Your task to perform on an android device: open app "Google Maps" Image 0: 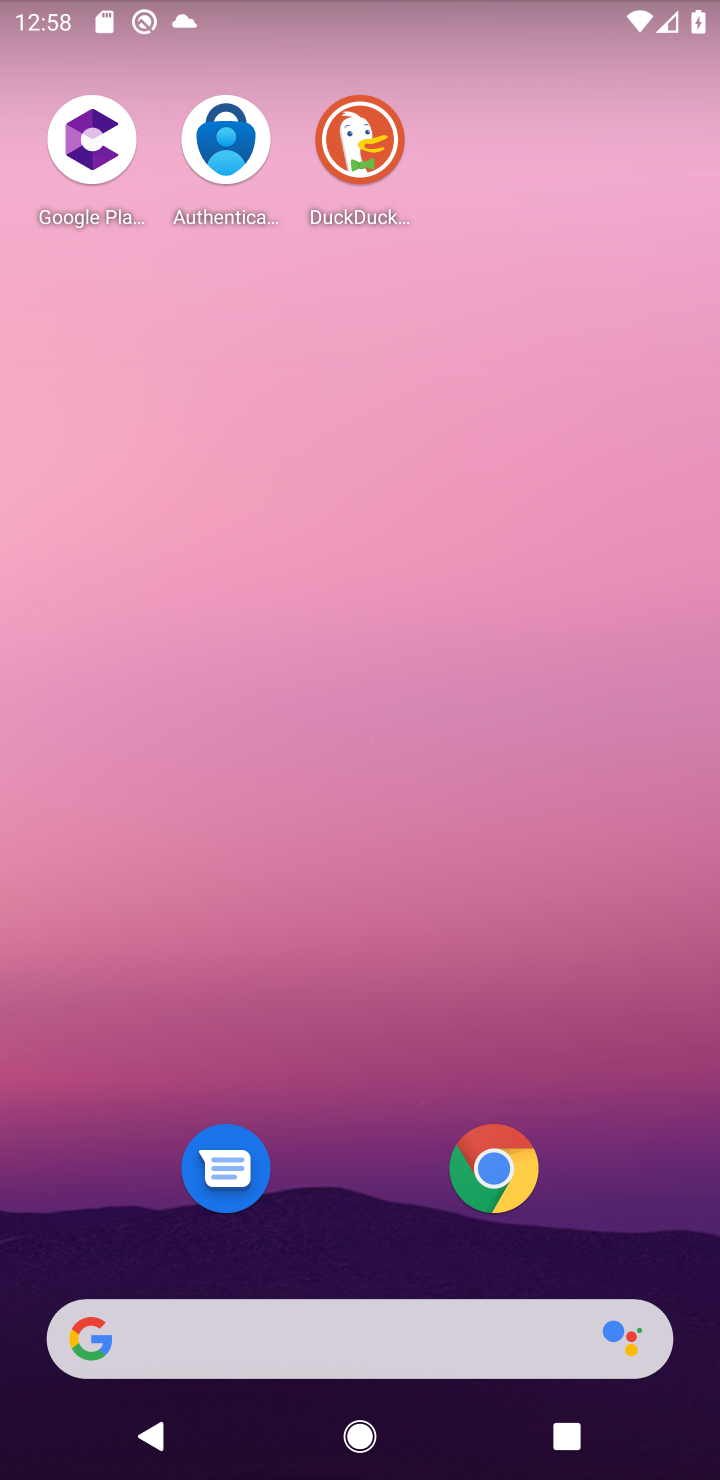
Step 0: drag from (433, 662) to (450, 79)
Your task to perform on an android device: open app "Google Maps" Image 1: 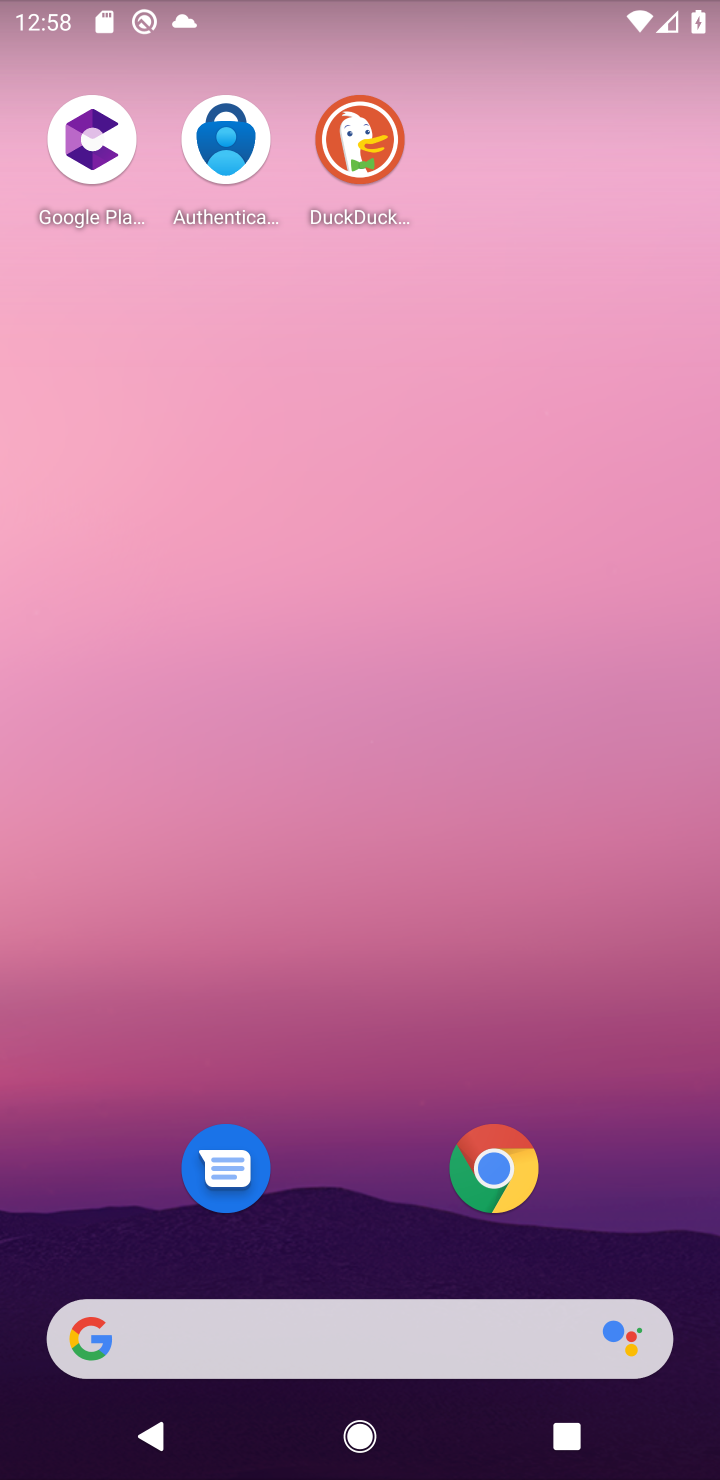
Step 1: drag from (432, 1460) to (390, 12)
Your task to perform on an android device: open app "Google Maps" Image 2: 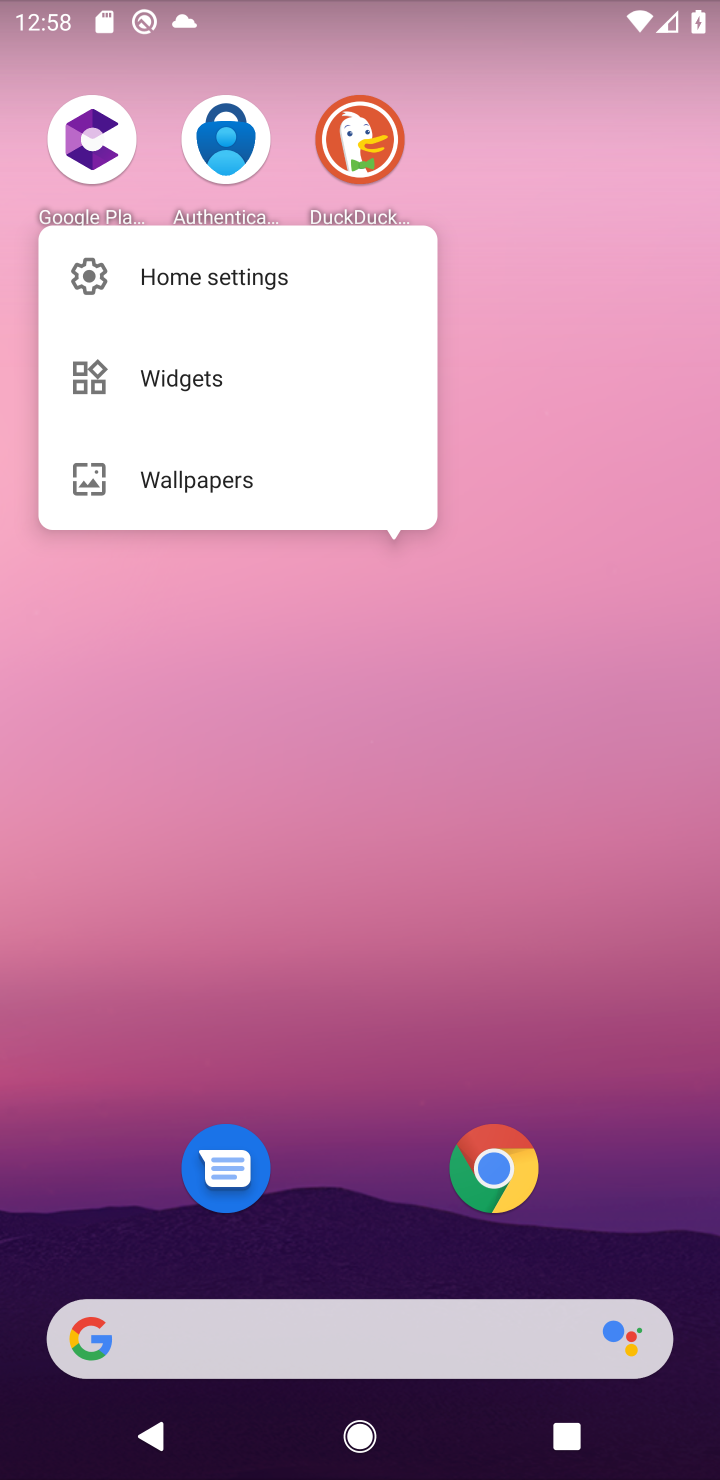
Step 2: press home button
Your task to perform on an android device: open app "Google Maps" Image 3: 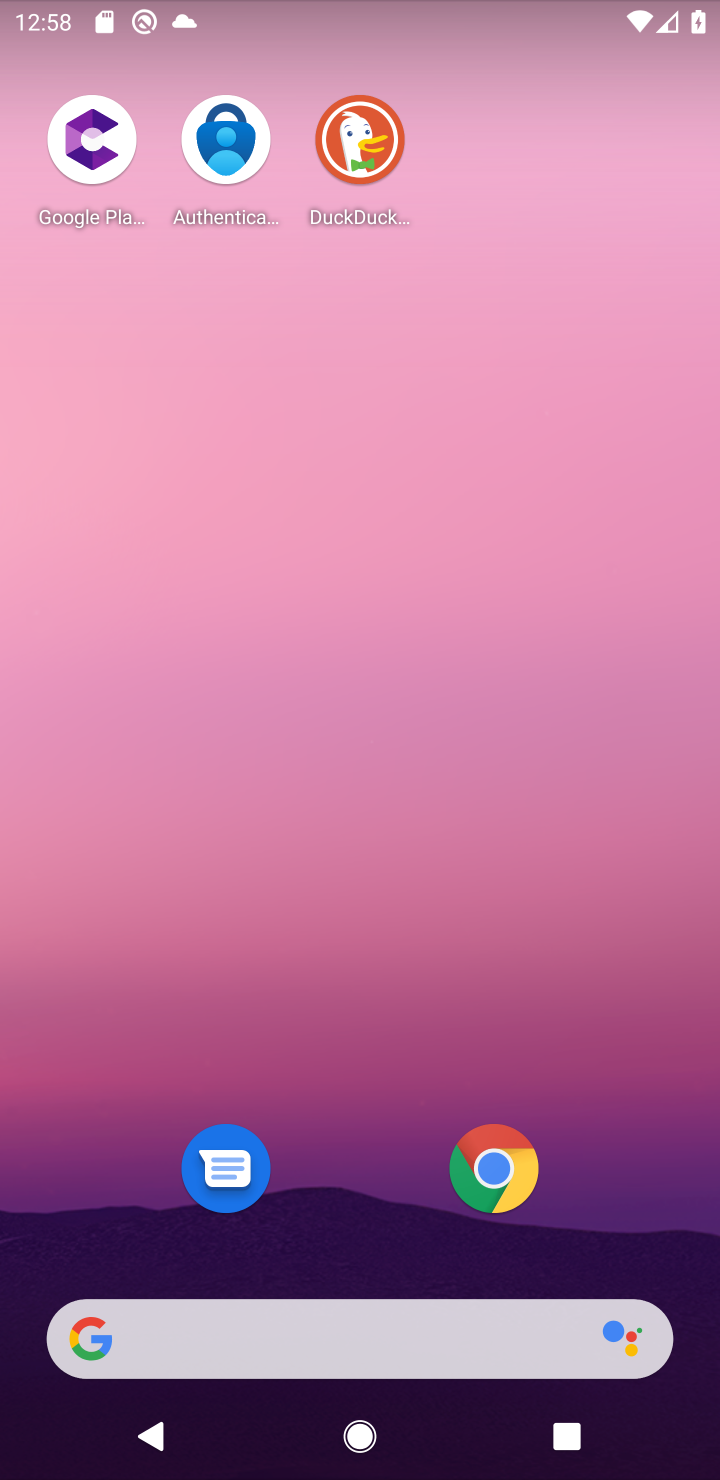
Step 3: drag from (403, 1435) to (403, 100)
Your task to perform on an android device: open app "Google Maps" Image 4: 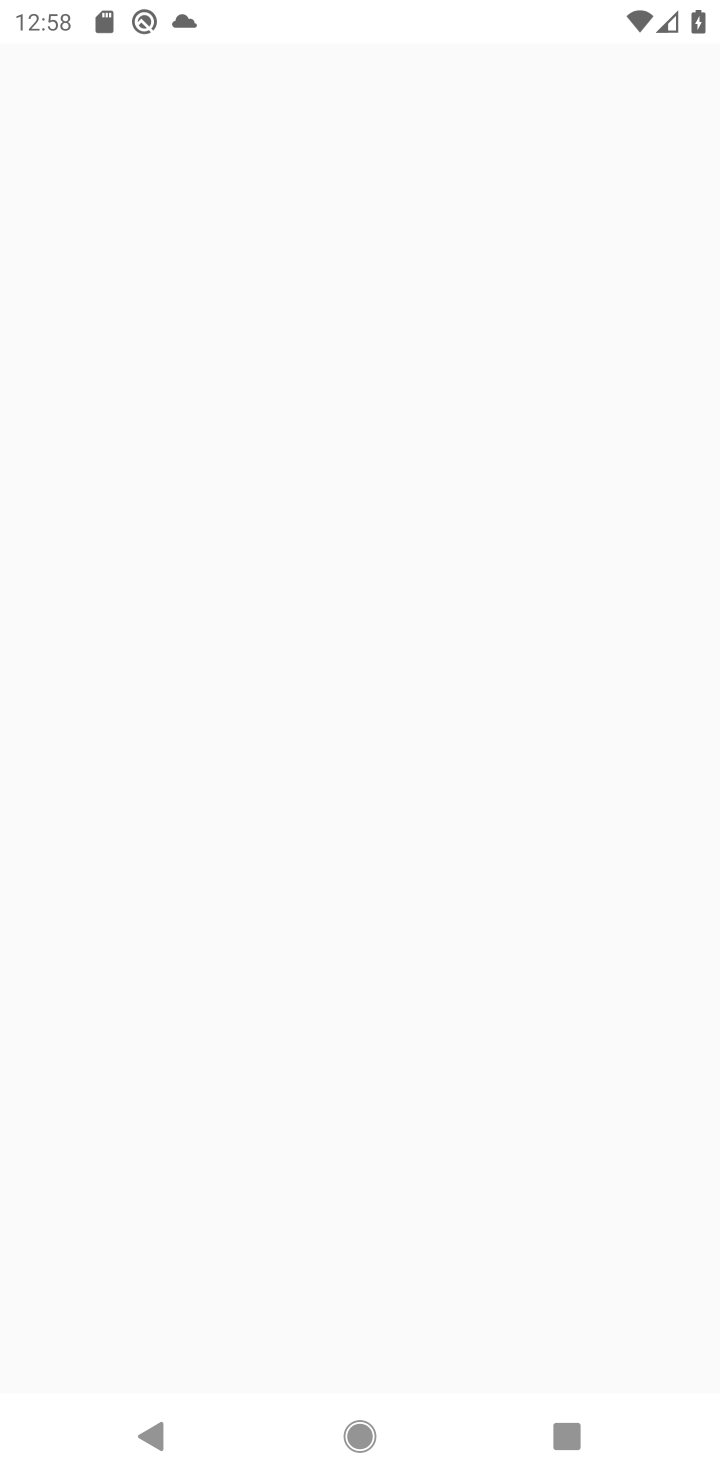
Step 4: press home button
Your task to perform on an android device: open app "Google Maps" Image 5: 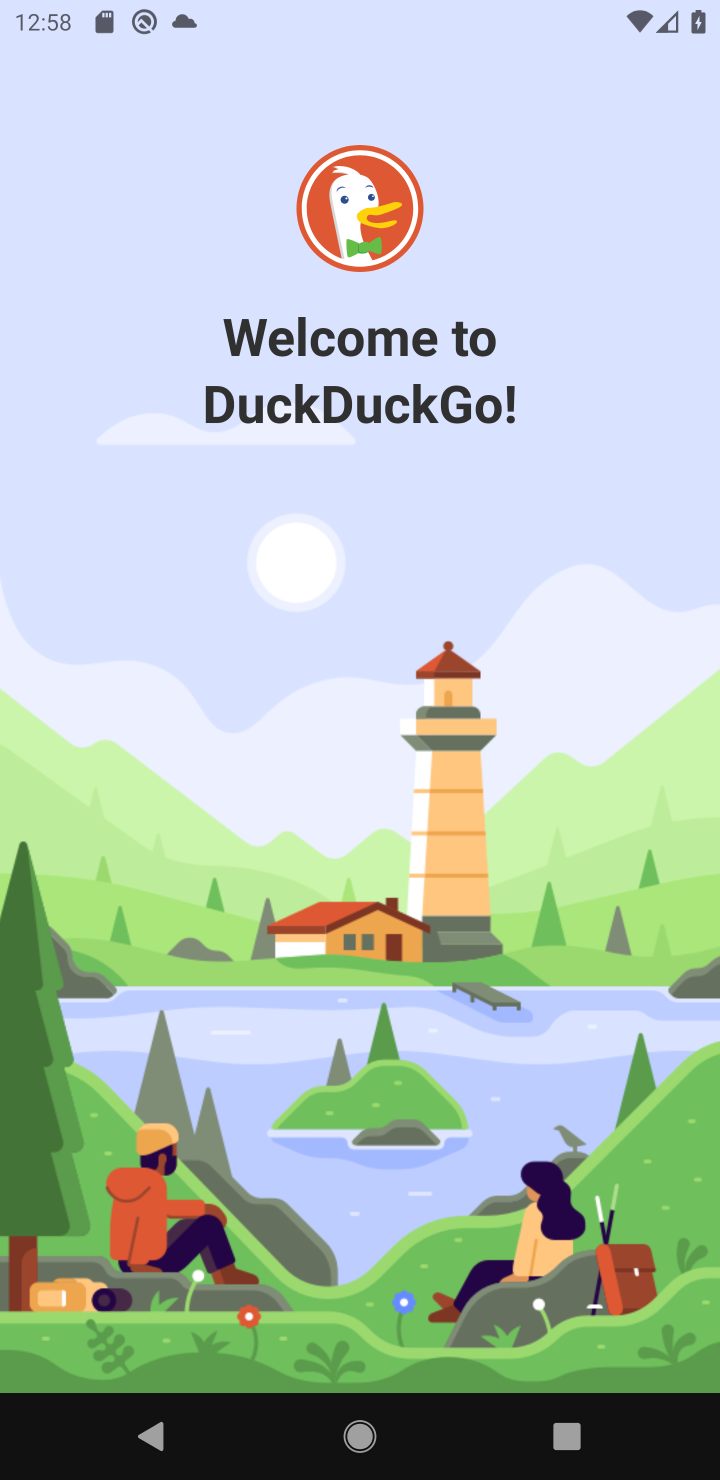
Step 5: press home button
Your task to perform on an android device: open app "Google Maps" Image 6: 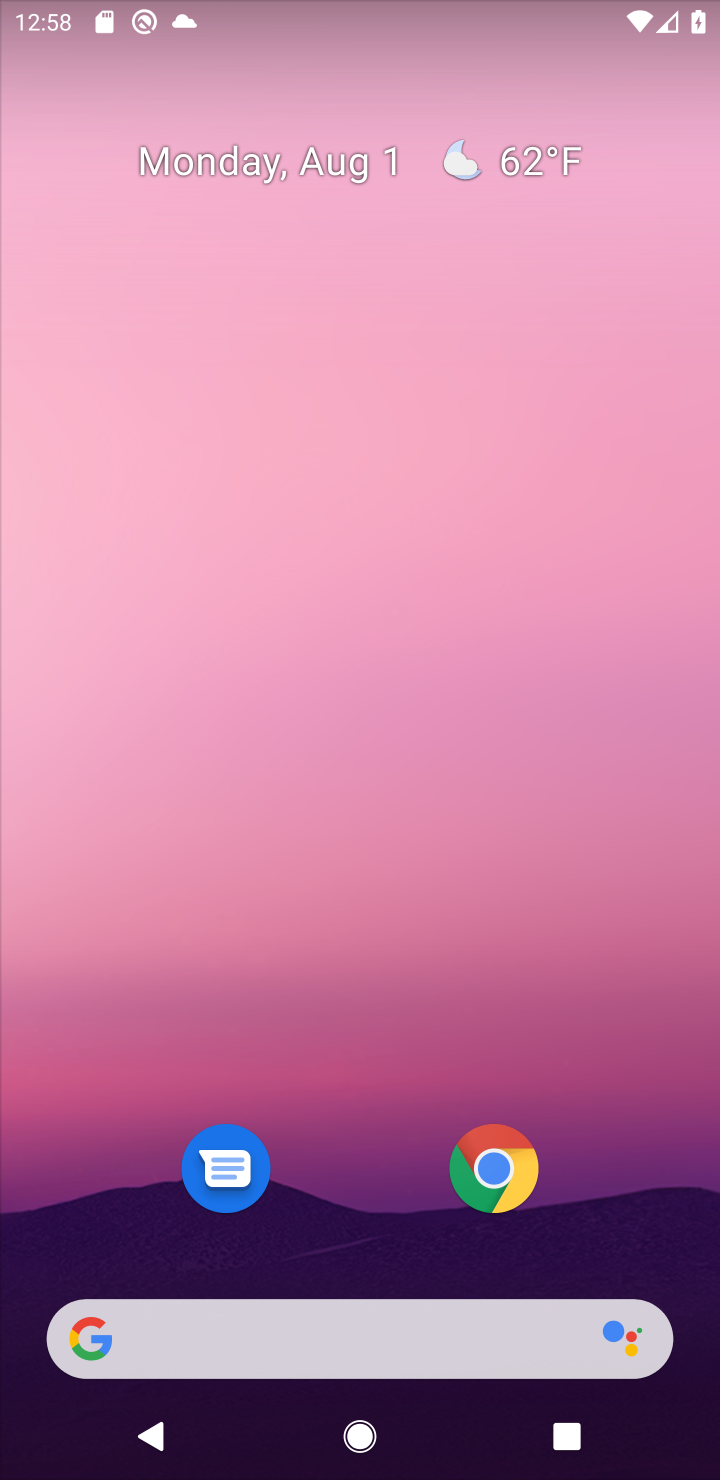
Step 6: drag from (422, 1466) to (357, 31)
Your task to perform on an android device: open app "Google Maps" Image 7: 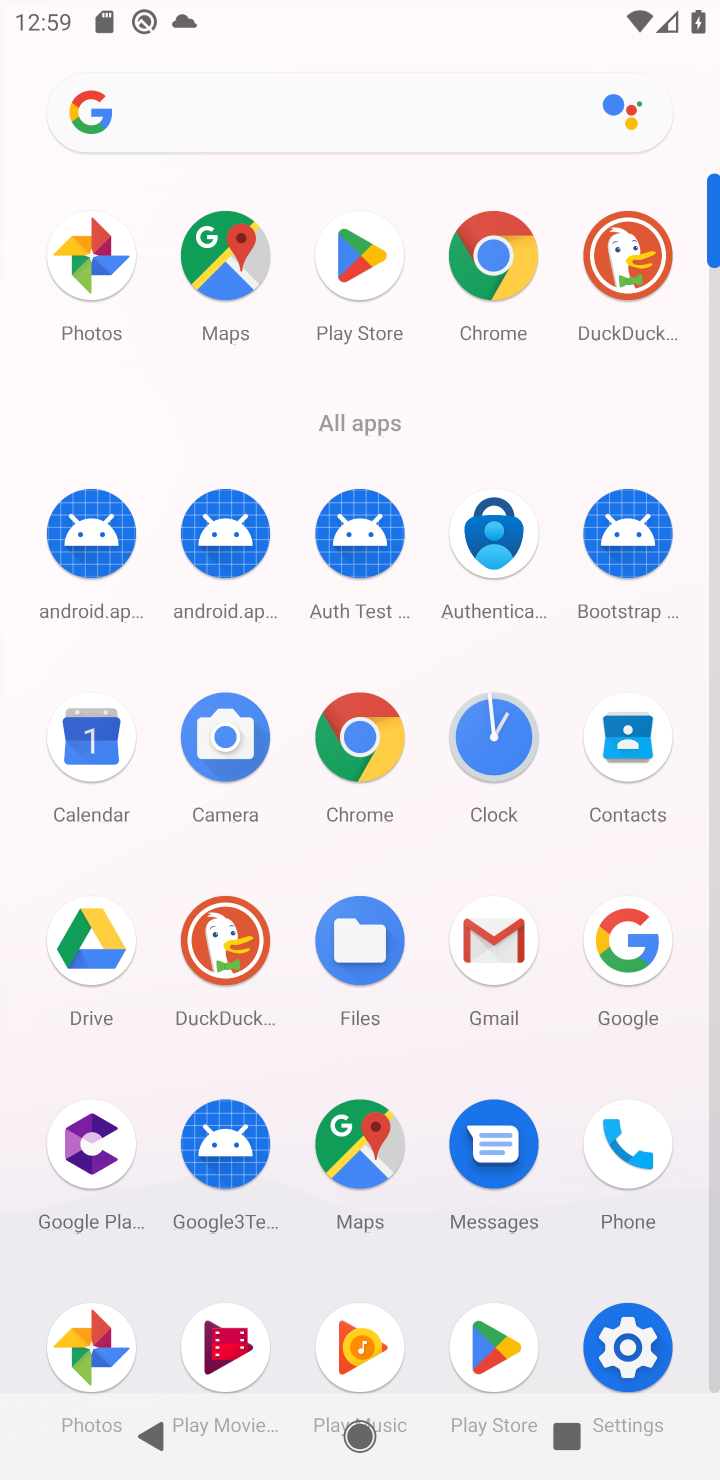
Step 7: click (233, 240)
Your task to perform on an android device: open app "Google Maps" Image 8: 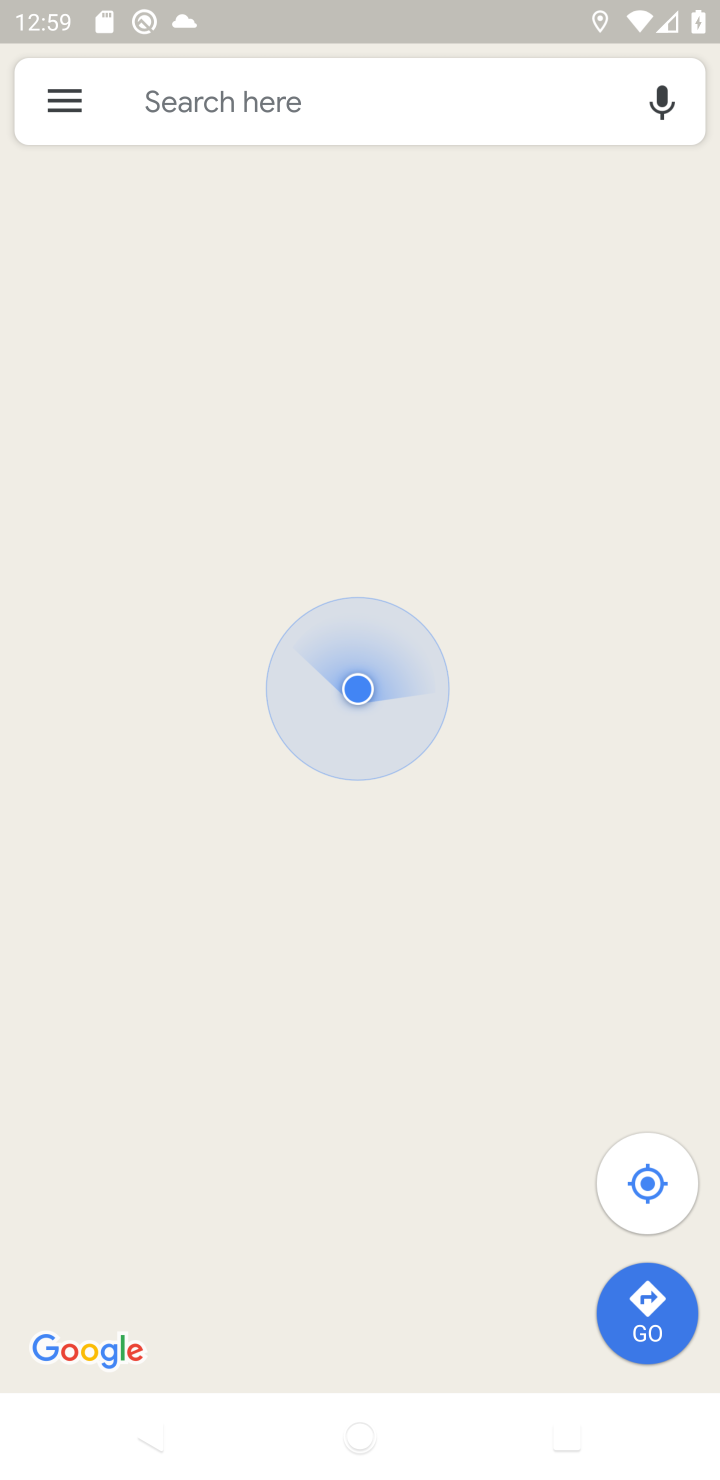
Step 8: task complete